Your task to perform on an android device: Open accessibility settings Image 0: 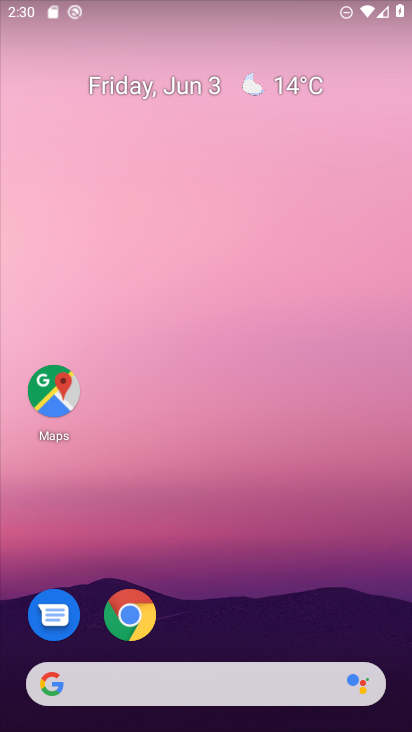
Step 0: drag from (178, 661) to (196, 261)
Your task to perform on an android device: Open accessibility settings Image 1: 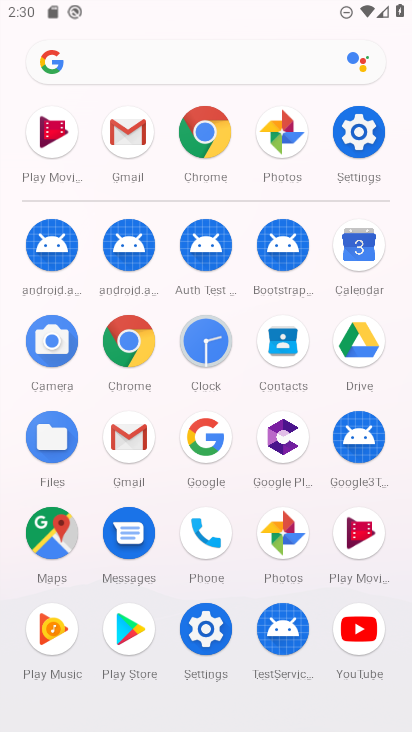
Step 1: click (360, 137)
Your task to perform on an android device: Open accessibility settings Image 2: 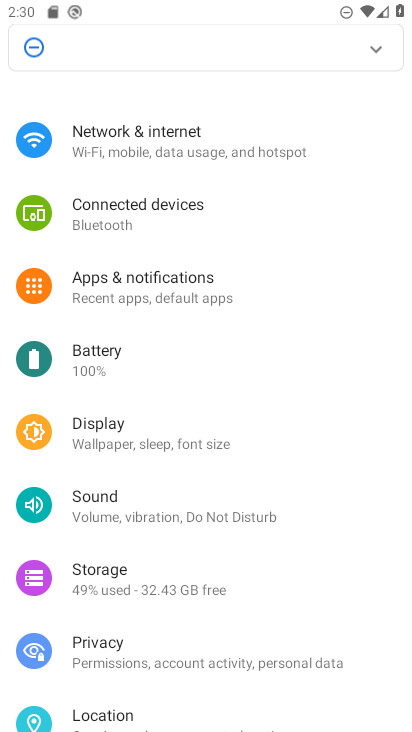
Step 2: drag from (152, 607) to (220, 19)
Your task to perform on an android device: Open accessibility settings Image 3: 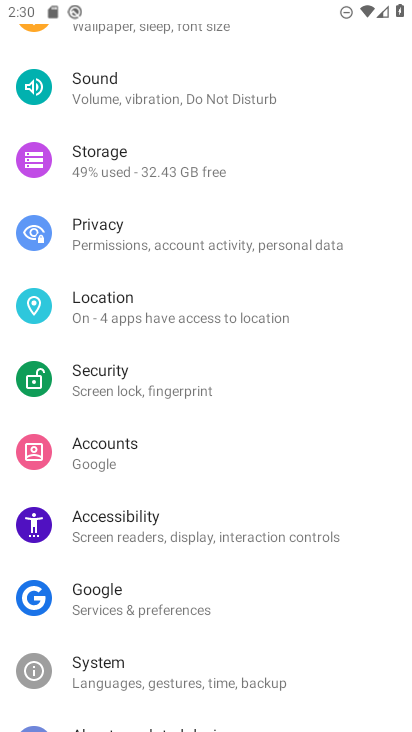
Step 3: drag from (230, 571) to (263, 52)
Your task to perform on an android device: Open accessibility settings Image 4: 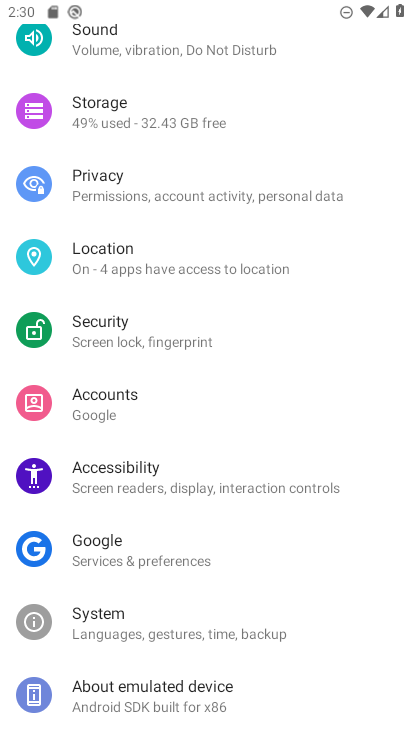
Step 4: click (159, 463)
Your task to perform on an android device: Open accessibility settings Image 5: 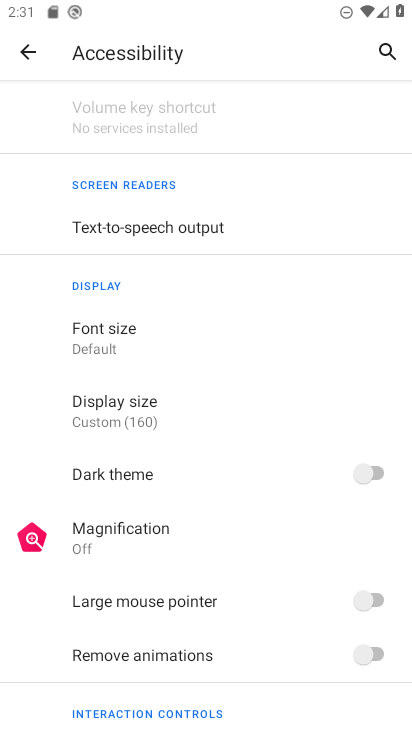
Step 5: task complete